Your task to perform on an android device: turn on notifications settings in the gmail app Image 0: 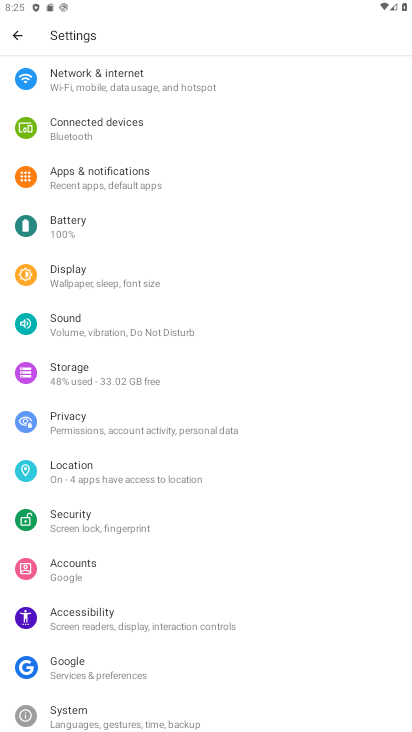
Step 0: press back button
Your task to perform on an android device: turn on notifications settings in the gmail app Image 1: 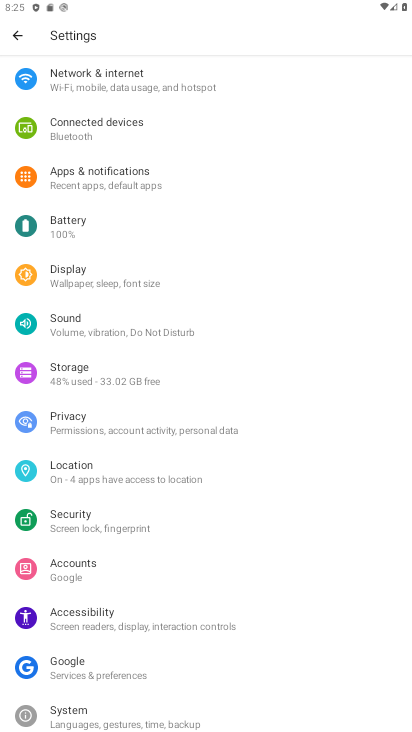
Step 1: press back button
Your task to perform on an android device: turn on notifications settings in the gmail app Image 2: 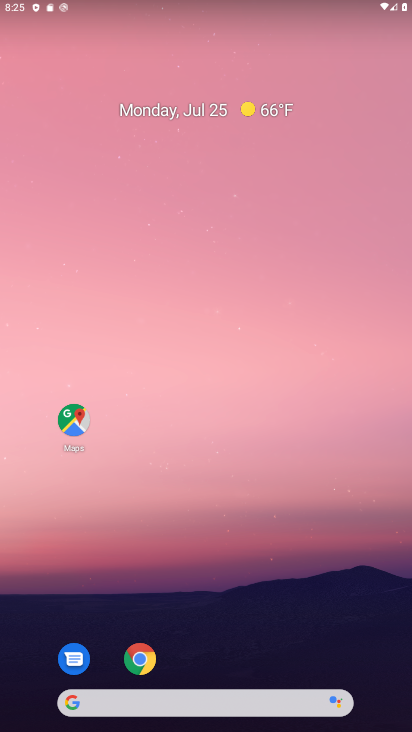
Step 2: press back button
Your task to perform on an android device: turn on notifications settings in the gmail app Image 3: 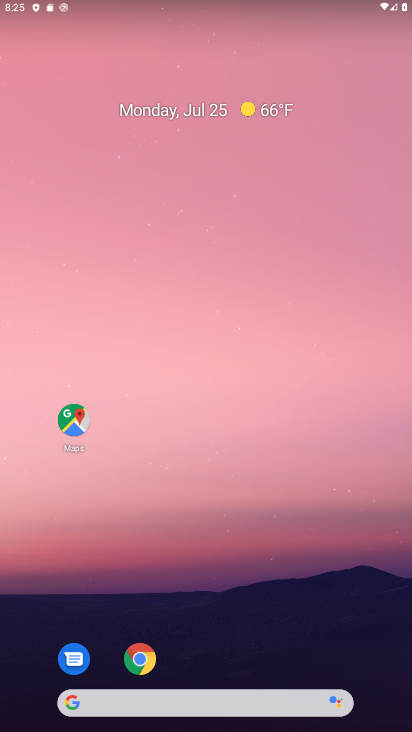
Step 3: drag from (216, 562) to (108, 135)
Your task to perform on an android device: turn on notifications settings in the gmail app Image 4: 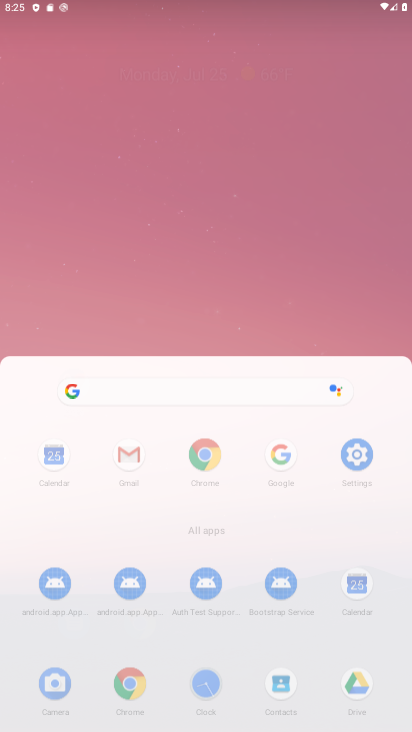
Step 4: drag from (200, 566) to (86, 9)
Your task to perform on an android device: turn on notifications settings in the gmail app Image 5: 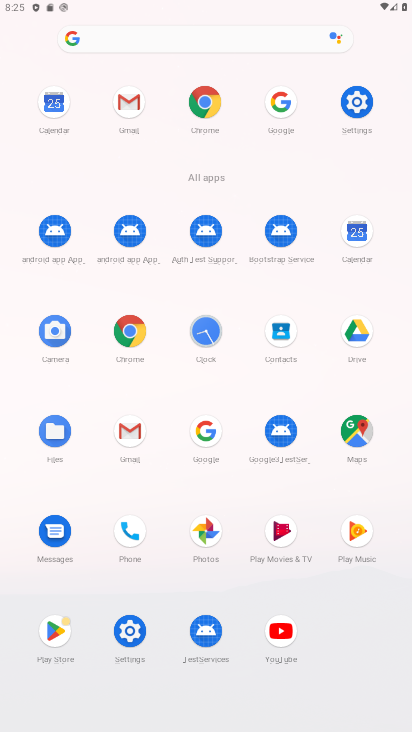
Step 5: drag from (189, 281) to (193, 44)
Your task to perform on an android device: turn on notifications settings in the gmail app Image 6: 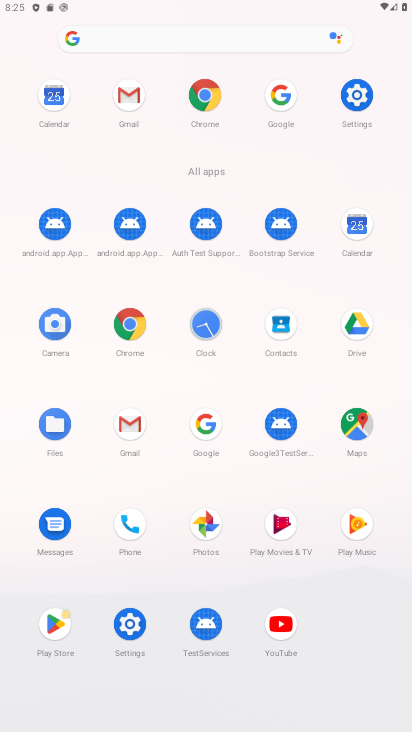
Step 6: drag from (219, 363) to (128, 130)
Your task to perform on an android device: turn on notifications settings in the gmail app Image 7: 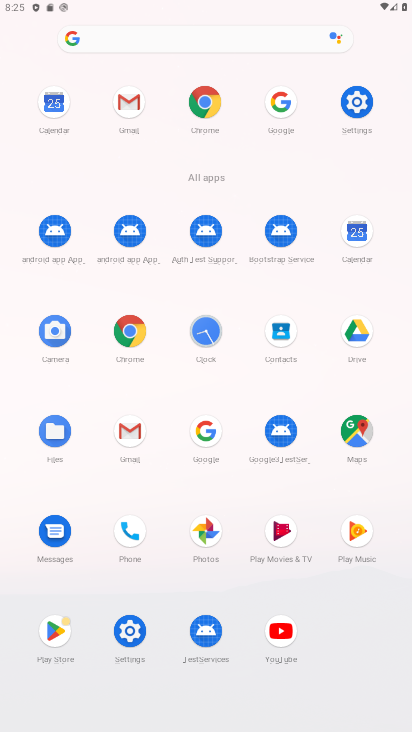
Step 7: click (123, 422)
Your task to perform on an android device: turn on notifications settings in the gmail app Image 8: 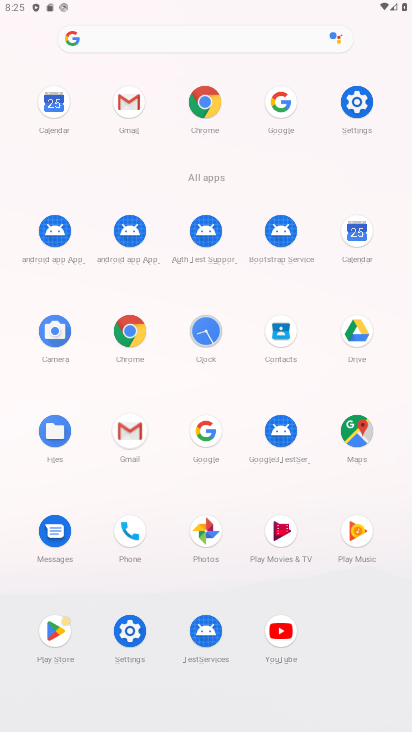
Step 8: click (131, 425)
Your task to perform on an android device: turn on notifications settings in the gmail app Image 9: 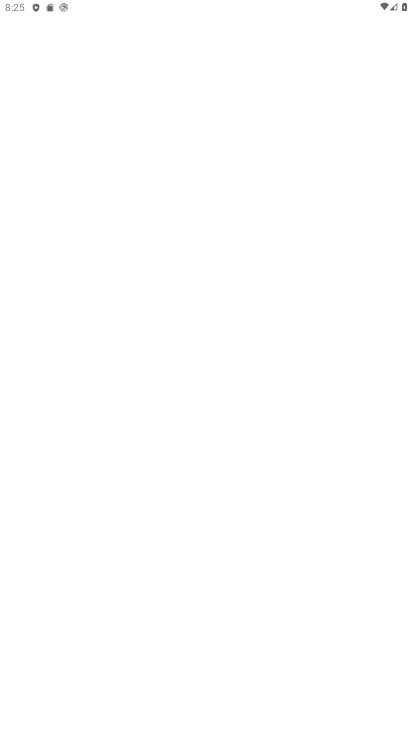
Step 9: click (133, 425)
Your task to perform on an android device: turn on notifications settings in the gmail app Image 10: 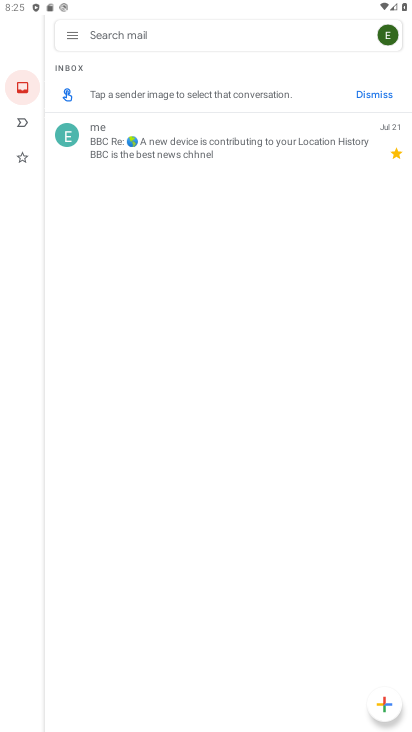
Step 10: click (69, 33)
Your task to perform on an android device: turn on notifications settings in the gmail app Image 11: 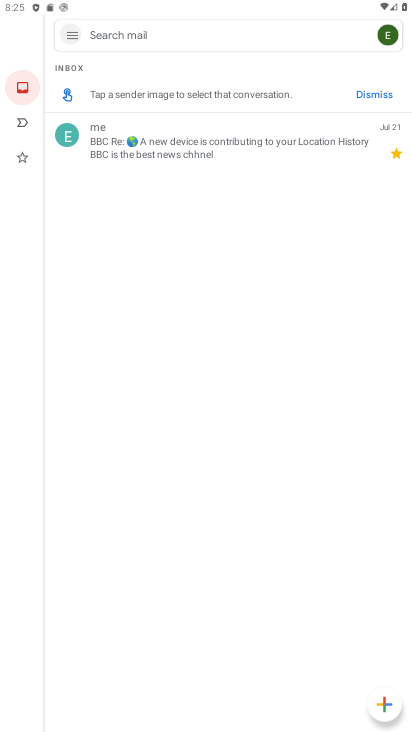
Step 11: click (71, 35)
Your task to perform on an android device: turn on notifications settings in the gmail app Image 12: 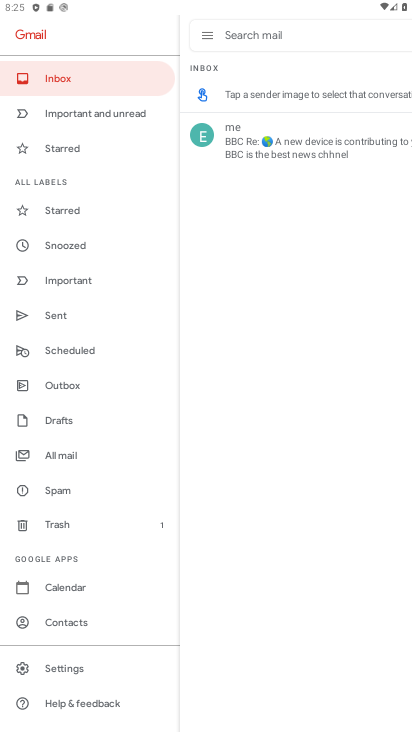
Step 12: click (55, 452)
Your task to perform on an android device: turn on notifications settings in the gmail app Image 13: 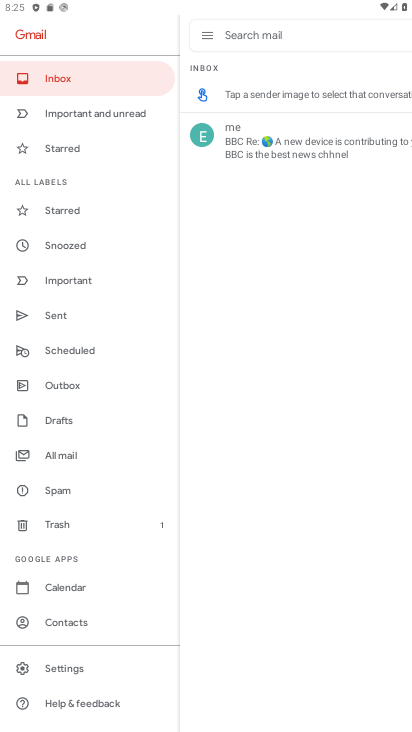
Step 13: click (70, 451)
Your task to perform on an android device: turn on notifications settings in the gmail app Image 14: 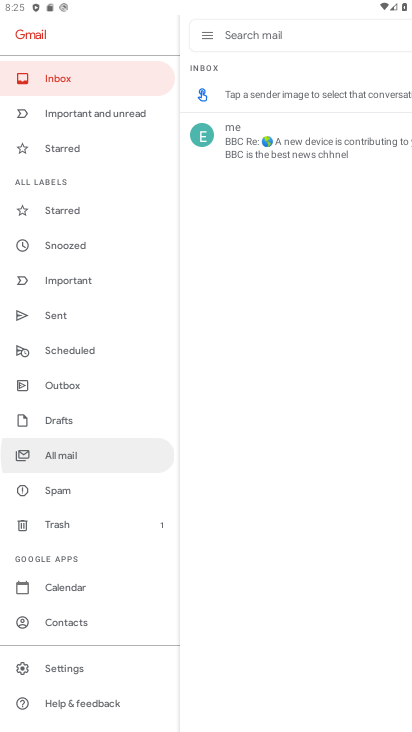
Step 14: click (69, 454)
Your task to perform on an android device: turn on notifications settings in the gmail app Image 15: 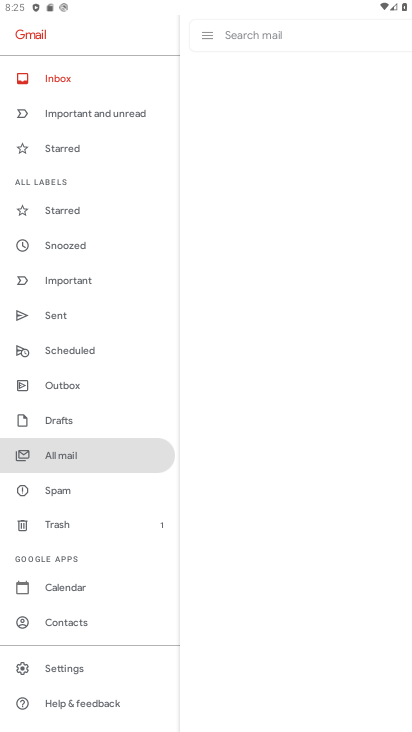
Step 15: click (74, 465)
Your task to perform on an android device: turn on notifications settings in the gmail app Image 16: 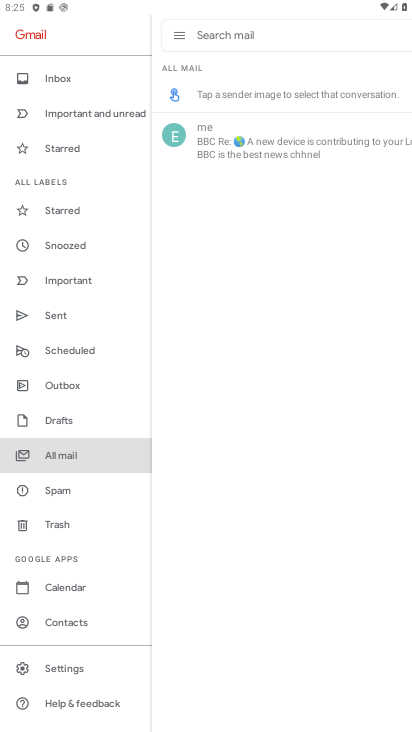
Step 16: click (77, 468)
Your task to perform on an android device: turn on notifications settings in the gmail app Image 17: 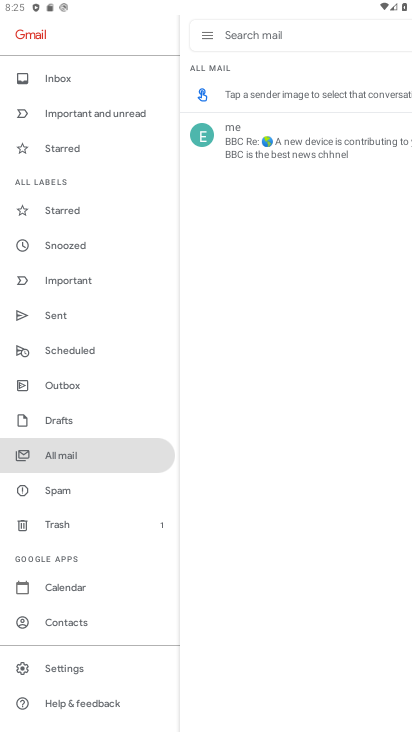
Step 17: click (85, 448)
Your task to perform on an android device: turn on notifications settings in the gmail app Image 18: 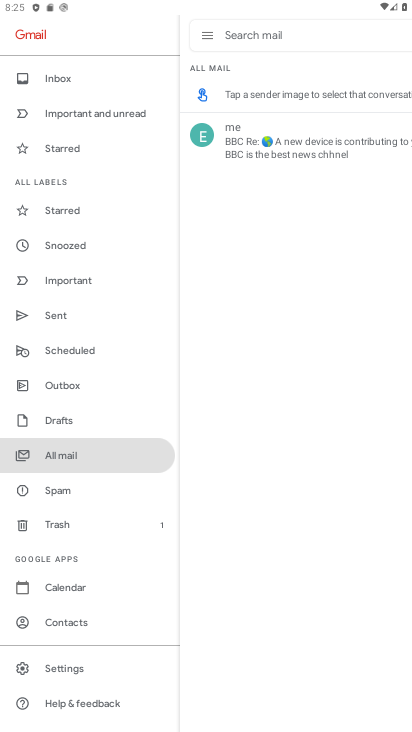
Step 18: click (87, 459)
Your task to perform on an android device: turn on notifications settings in the gmail app Image 19: 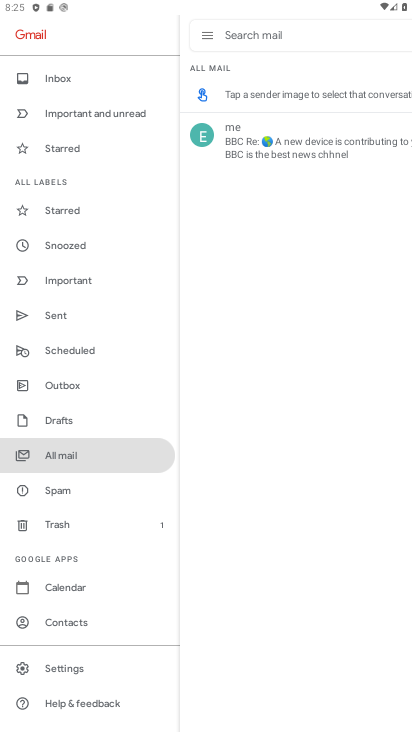
Step 19: click (100, 464)
Your task to perform on an android device: turn on notifications settings in the gmail app Image 20: 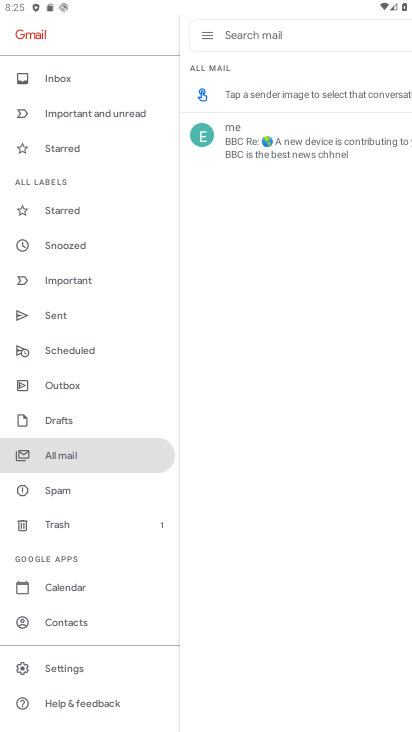
Step 20: click (95, 462)
Your task to perform on an android device: turn on notifications settings in the gmail app Image 21: 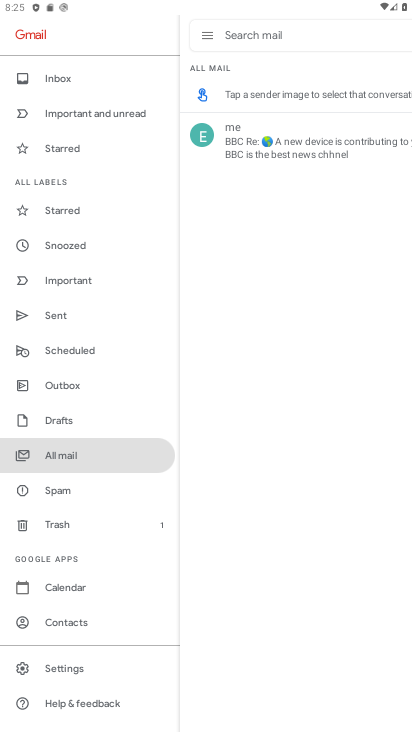
Step 21: click (90, 460)
Your task to perform on an android device: turn on notifications settings in the gmail app Image 22: 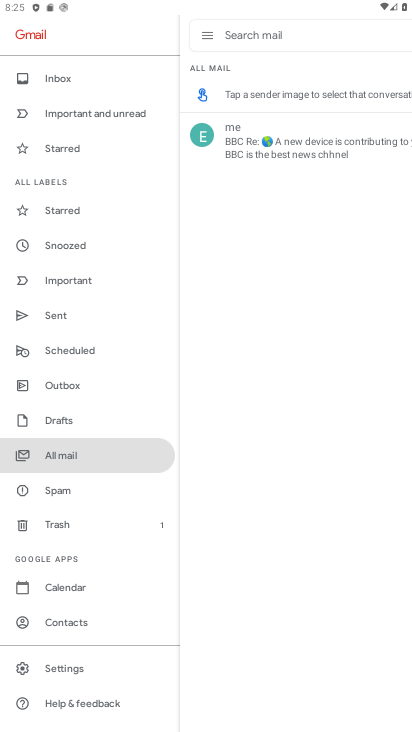
Step 22: click (113, 458)
Your task to perform on an android device: turn on notifications settings in the gmail app Image 23: 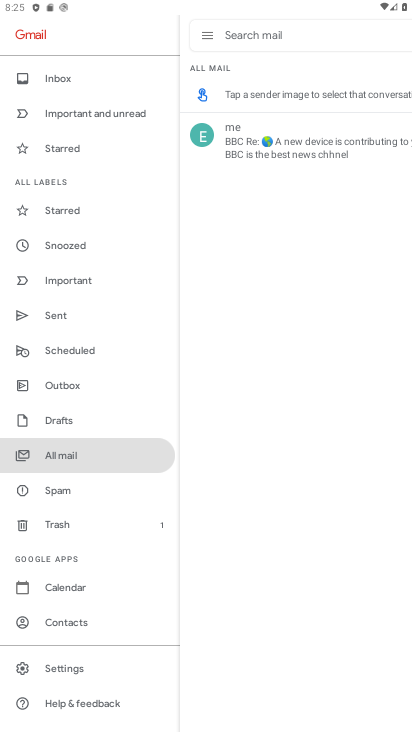
Step 23: click (115, 451)
Your task to perform on an android device: turn on notifications settings in the gmail app Image 24: 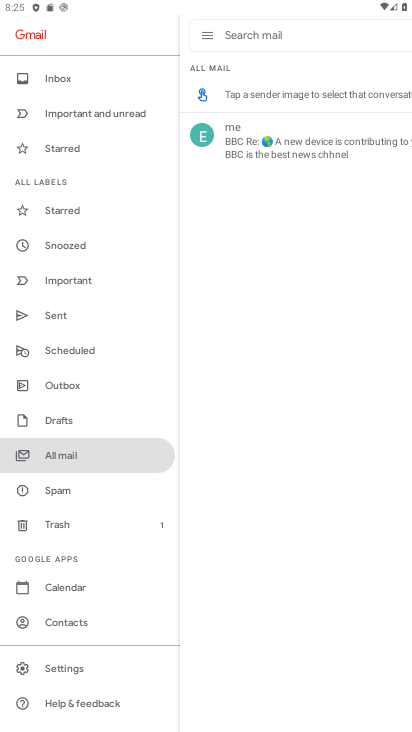
Step 24: click (116, 447)
Your task to perform on an android device: turn on notifications settings in the gmail app Image 25: 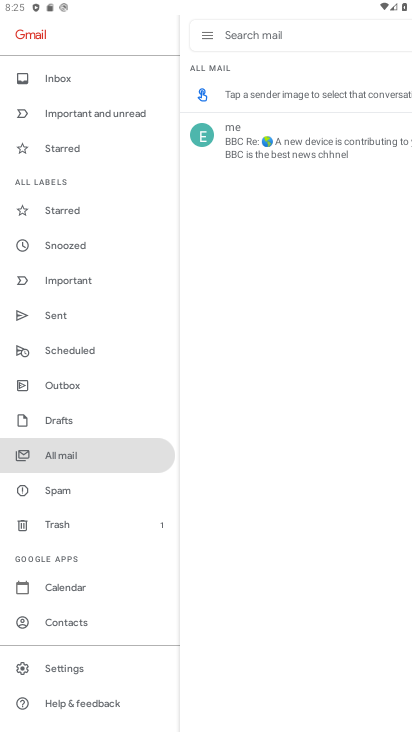
Step 25: click (117, 447)
Your task to perform on an android device: turn on notifications settings in the gmail app Image 26: 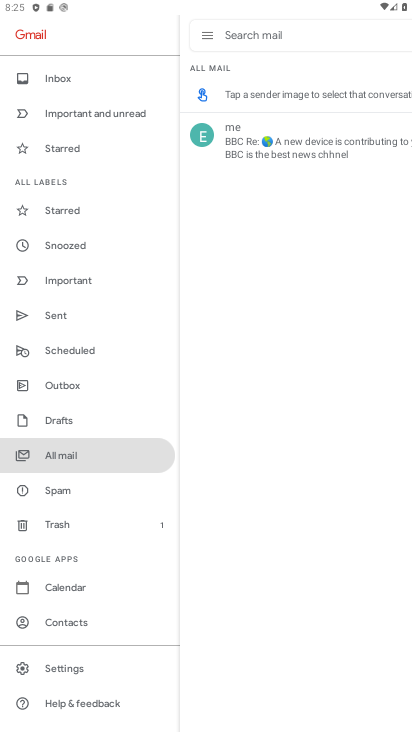
Step 26: click (115, 447)
Your task to perform on an android device: turn on notifications settings in the gmail app Image 27: 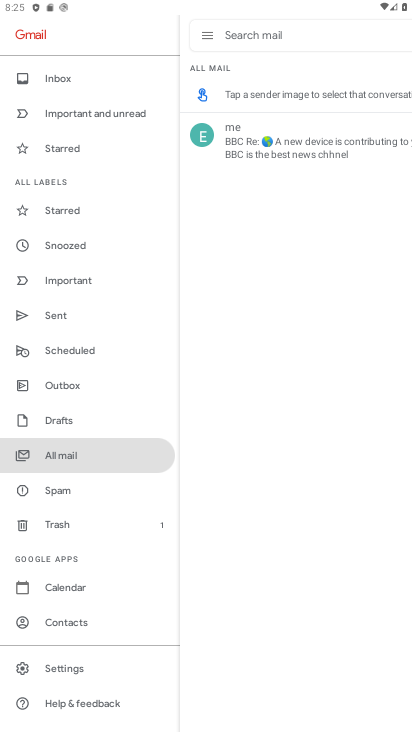
Step 27: click (114, 445)
Your task to perform on an android device: turn on notifications settings in the gmail app Image 28: 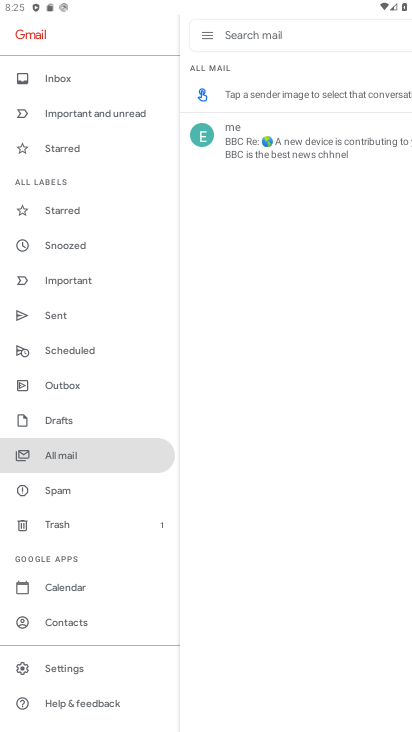
Step 28: click (68, 655)
Your task to perform on an android device: turn on notifications settings in the gmail app Image 29: 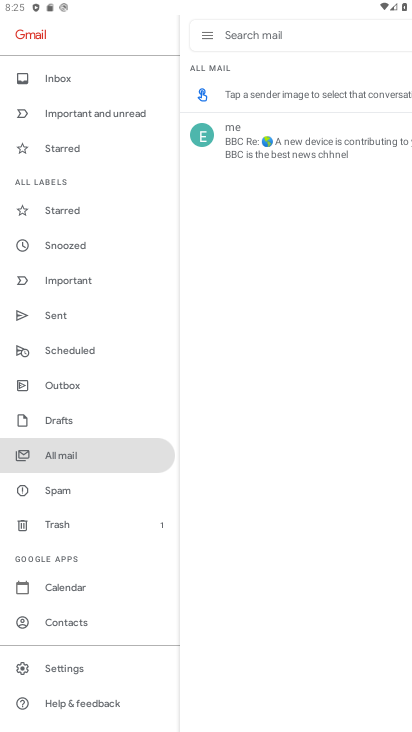
Step 29: click (66, 669)
Your task to perform on an android device: turn on notifications settings in the gmail app Image 30: 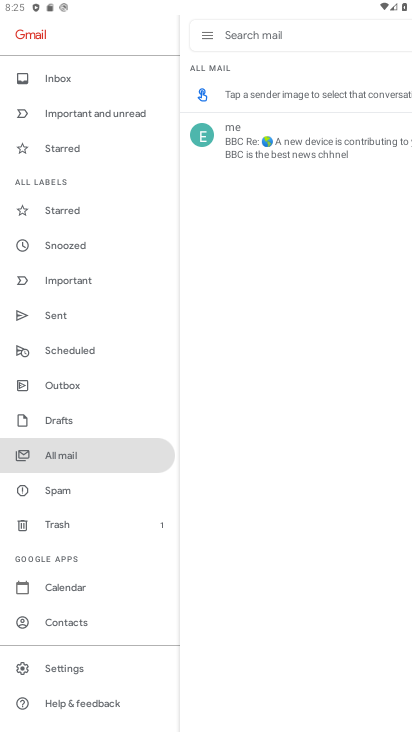
Step 30: click (66, 669)
Your task to perform on an android device: turn on notifications settings in the gmail app Image 31: 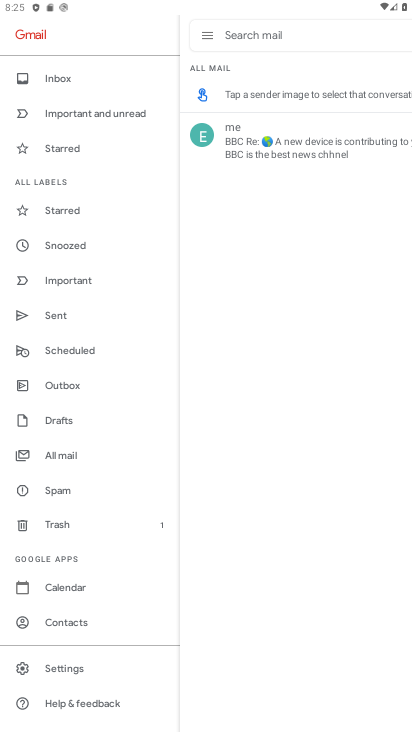
Step 31: click (65, 668)
Your task to perform on an android device: turn on notifications settings in the gmail app Image 32: 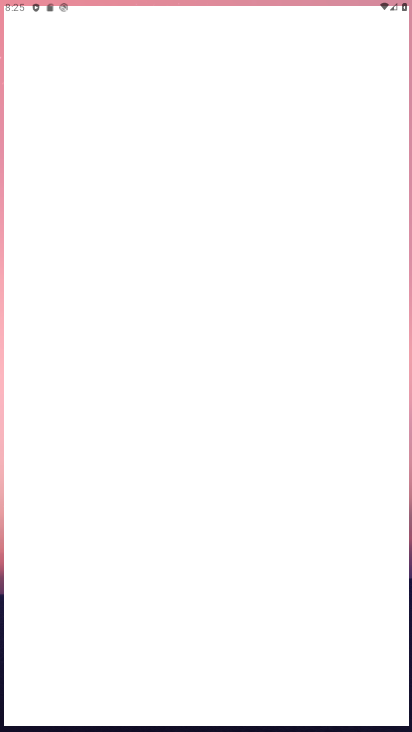
Step 32: click (66, 667)
Your task to perform on an android device: turn on notifications settings in the gmail app Image 33: 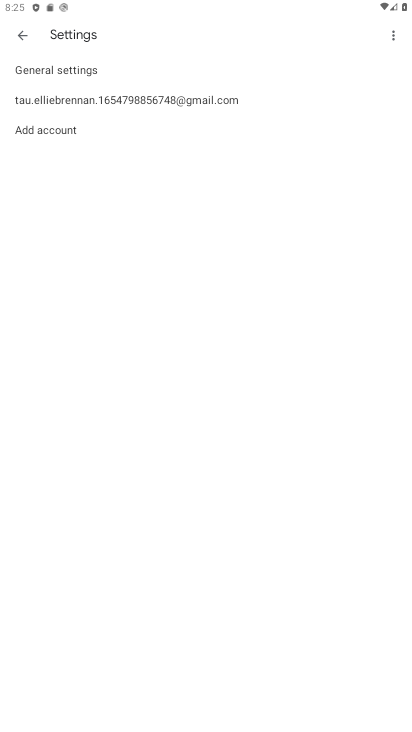
Step 33: click (66, 663)
Your task to perform on an android device: turn on notifications settings in the gmail app Image 34: 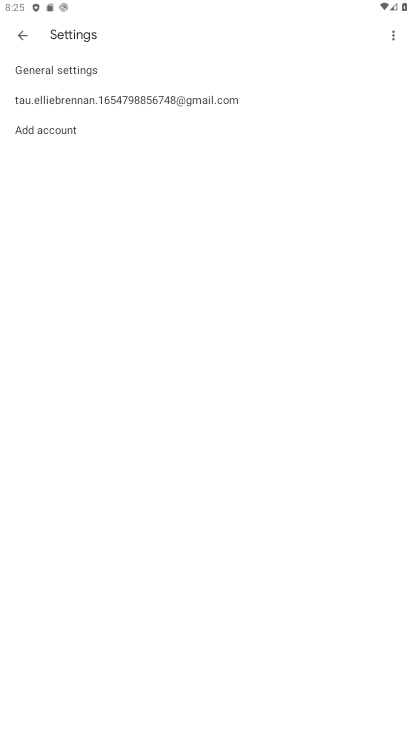
Step 34: click (69, 96)
Your task to perform on an android device: turn on notifications settings in the gmail app Image 35: 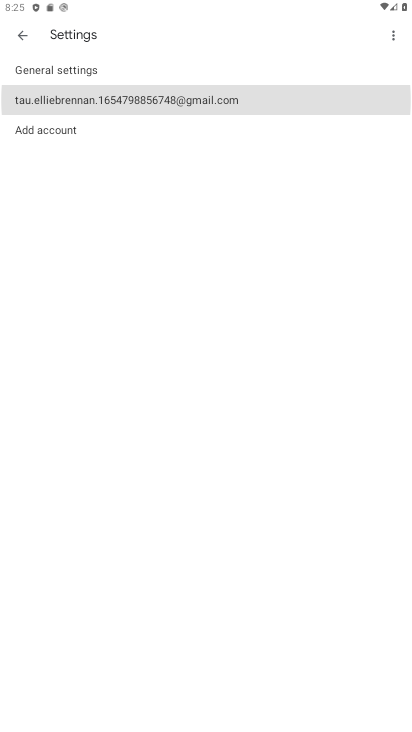
Step 35: click (69, 96)
Your task to perform on an android device: turn on notifications settings in the gmail app Image 36: 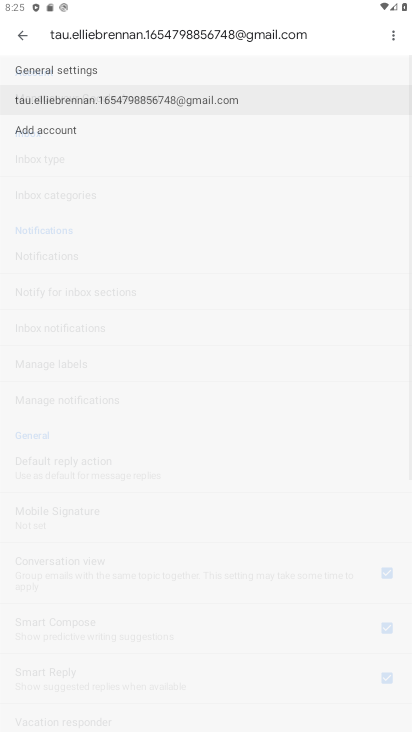
Step 36: click (69, 96)
Your task to perform on an android device: turn on notifications settings in the gmail app Image 37: 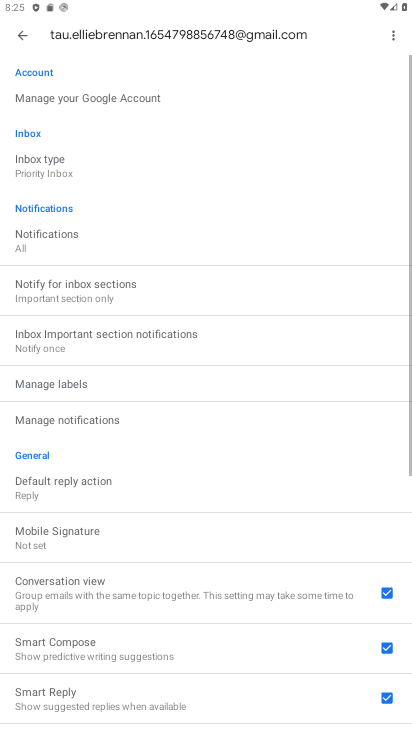
Step 37: click (69, 96)
Your task to perform on an android device: turn on notifications settings in the gmail app Image 38: 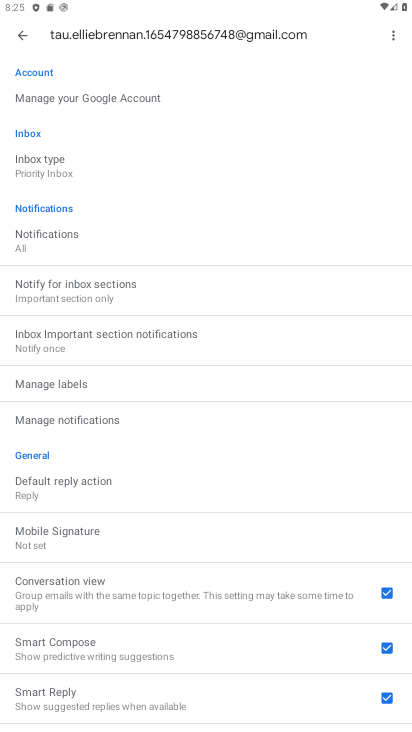
Step 38: click (46, 234)
Your task to perform on an android device: turn on notifications settings in the gmail app Image 39: 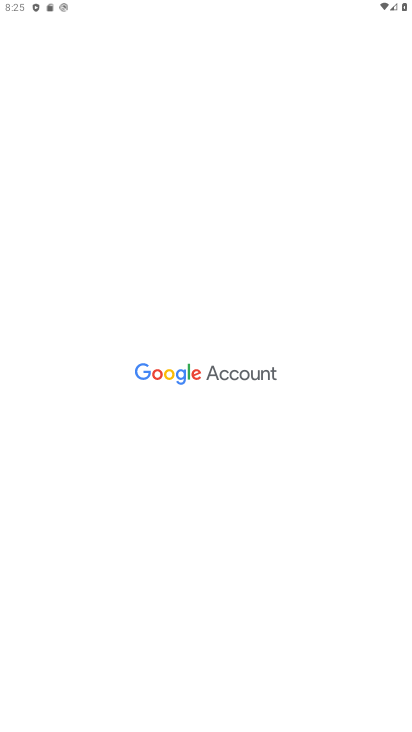
Step 39: click (58, 242)
Your task to perform on an android device: turn on notifications settings in the gmail app Image 40: 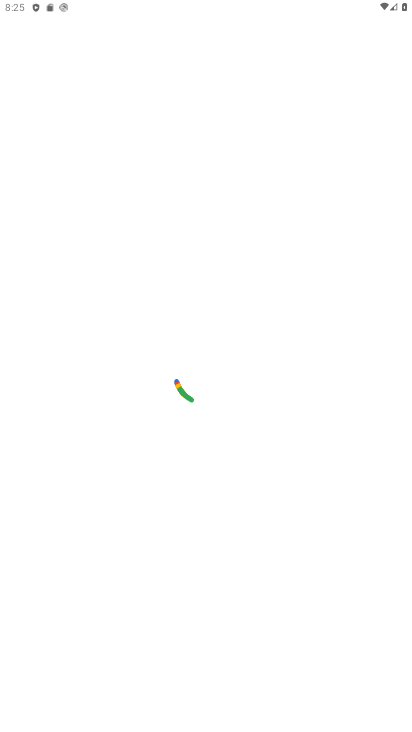
Step 40: press back button
Your task to perform on an android device: turn on notifications settings in the gmail app Image 41: 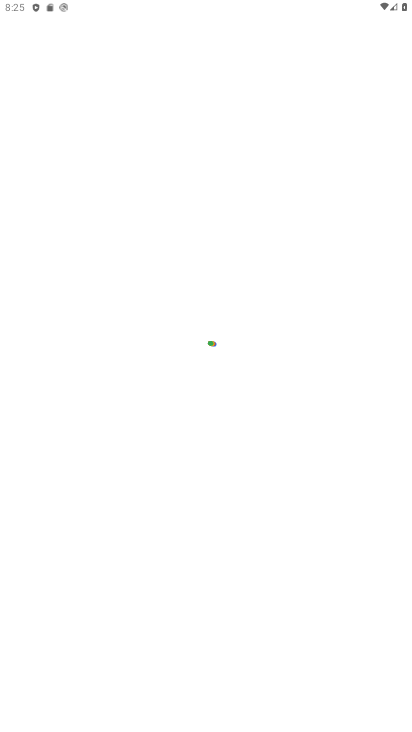
Step 41: press back button
Your task to perform on an android device: turn on notifications settings in the gmail app Image 42: 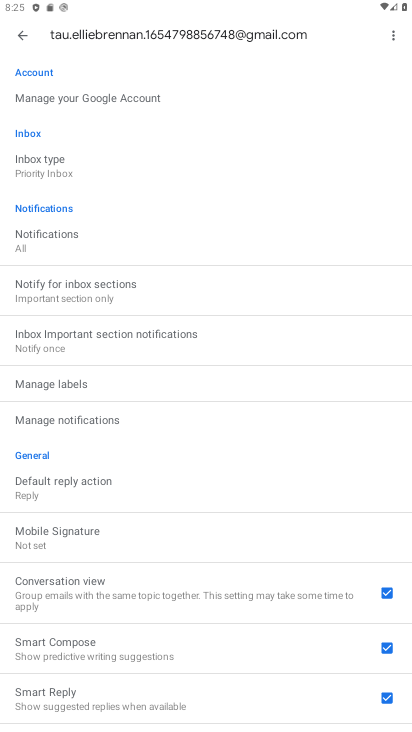
Step 42: click (38, 242)
Your task to perform on an android device: turn on notifications settings in the gmail app Image 43: 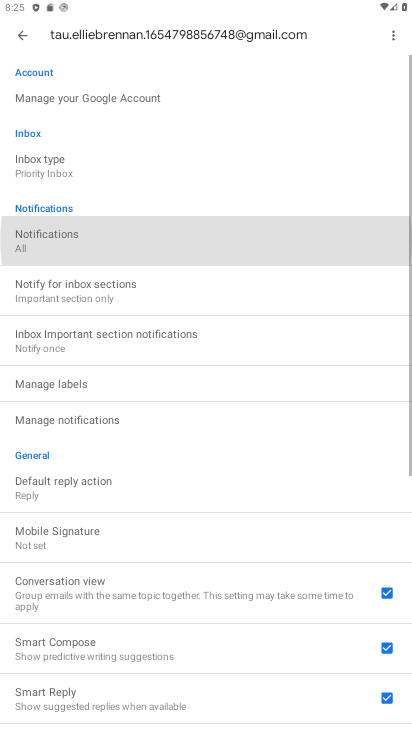
Step 43: click (38, 242)
Your task to perform on an android device: turn on notifications settings in the gmail app Image 44: 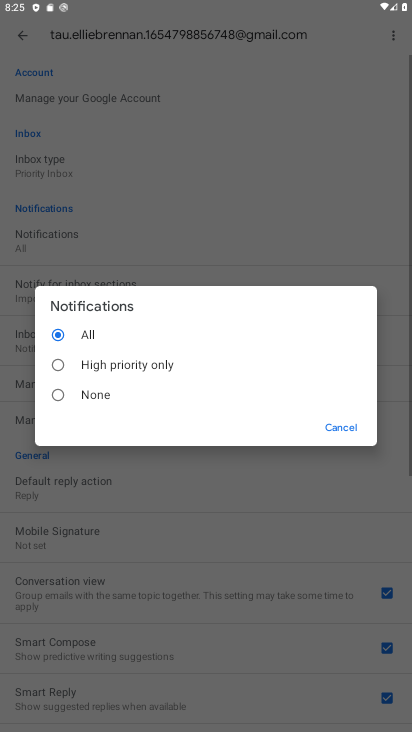
Step 44: click (38, 243)
Your task to perform on an android device: turn on notifications settings in the gmail app Image 45: 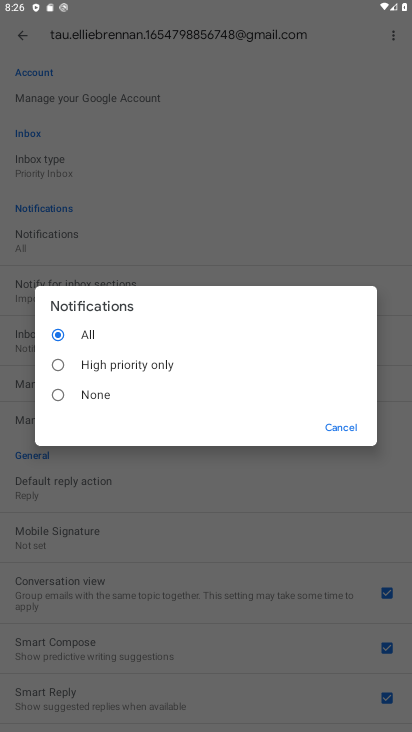
Step 45: click (282, 195)
Your task to perform on an android device: turn on notifications settings in the gmail app Image 46: 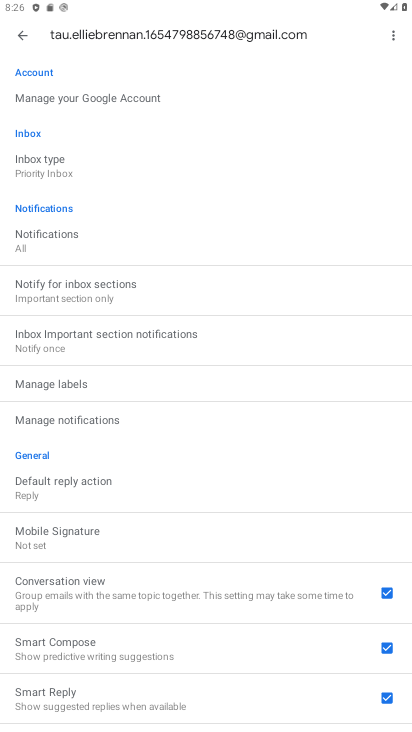
Step 46: task complete